Your task to perform on an android device: Open CNN.com Image 0: 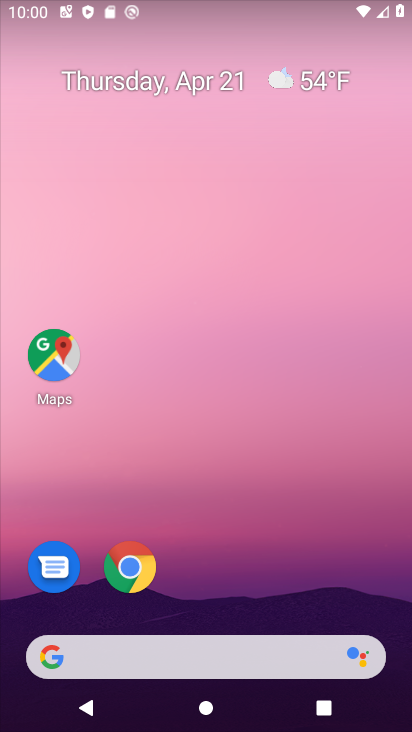
Step 0: click (131, 568)
Your task to perform on an android device: Open CNN.com Image 1: 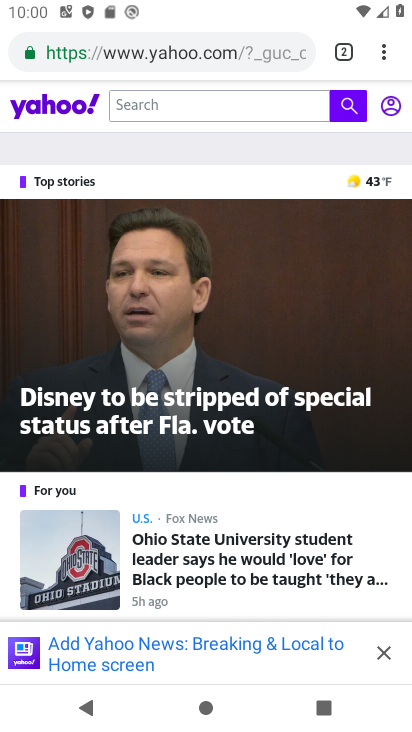
Step 1: click (269, 56)
Your task to perform on an android device: Open CNN.com Image 2: 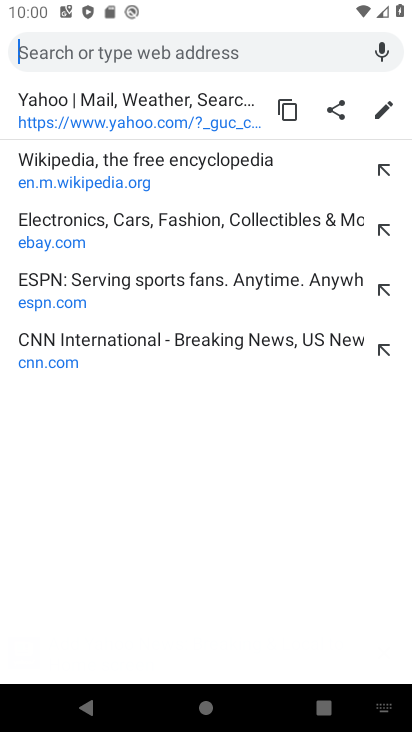
Step 2: type "cnn.com"
Your task to perform on an android device: Open CNN.com Image 3: 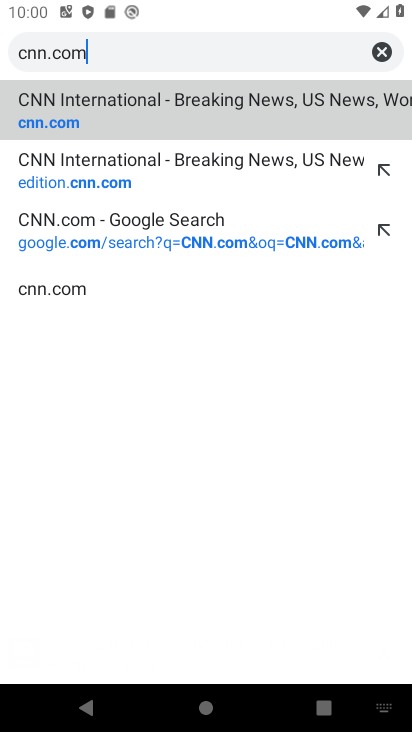
Step 3: click (60, 101)
Your task to perform on an android device: Open CNN.com Image 4: 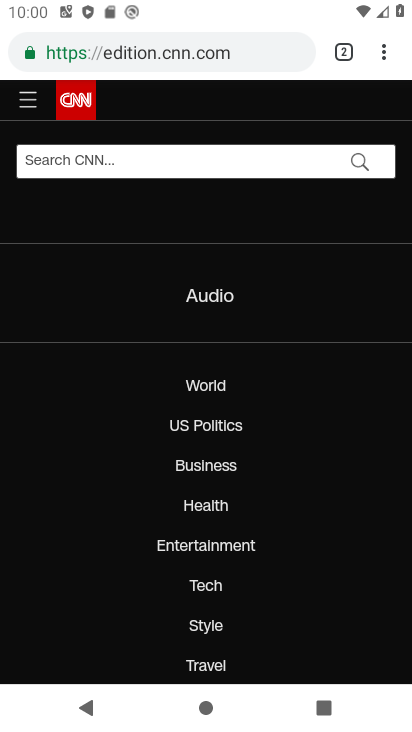
Step 4: task complete